Your task to perform on an android device: toggle improve location accuracy Image 0: 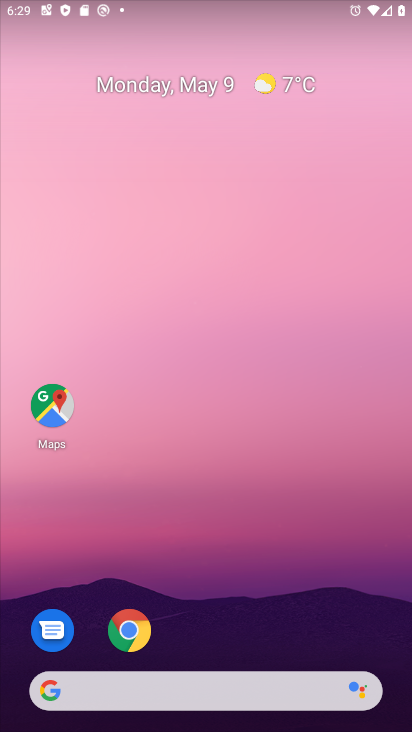
Step 0: drag from (252, 612) to (294, 173)
Your task to perform on an android device: toggle improve location accuracy Image 1: 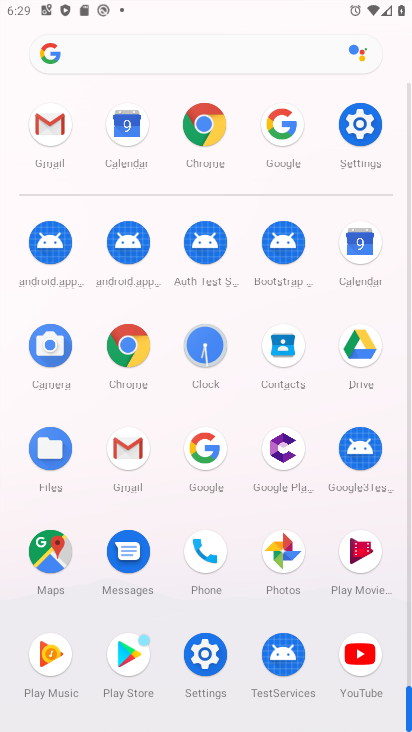
Step 1: click (367, 148)
Your task to perform on an android device: toggle improve location accuracy Image 2: 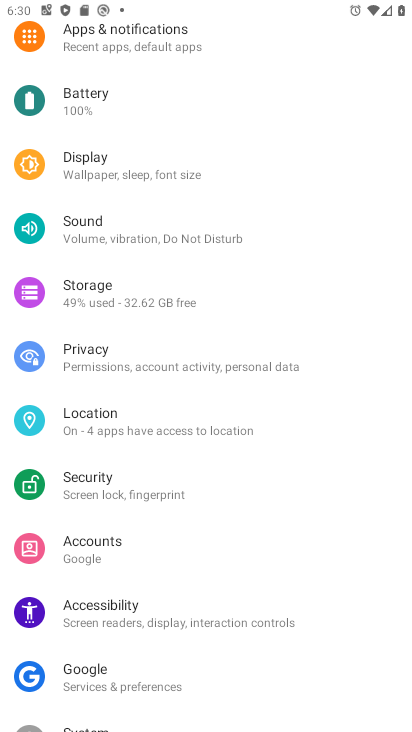
Step 2: click (147, 423)
Your task to perform on an android device: toggle improve location accuracy Image 3: 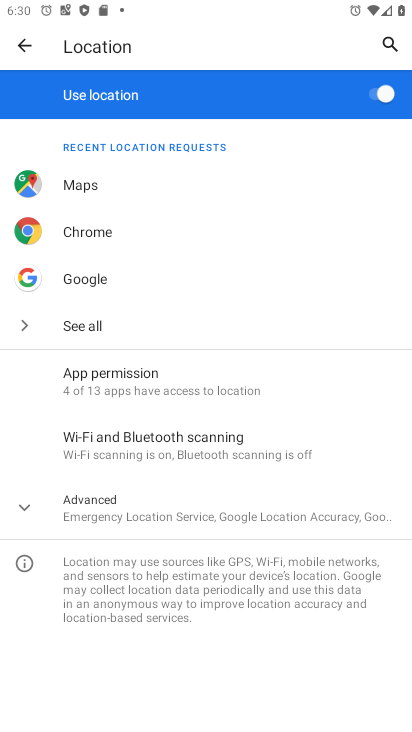
Step 3: click (135, 518)
Your task to perform on an android device: toggle improve location accuracy Image 4: 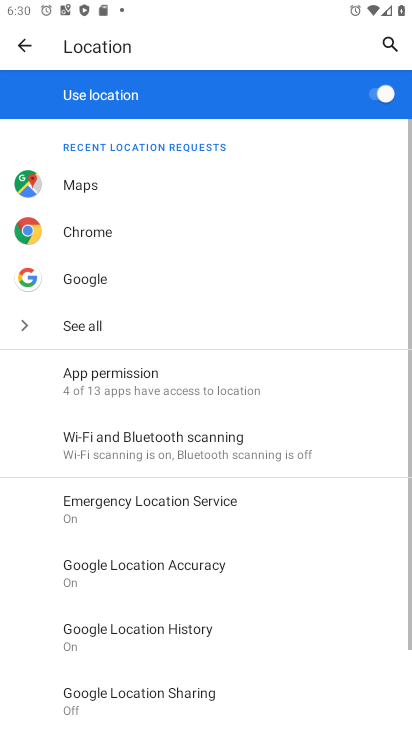
Step 4: drag from (189, 620) to (231, 462)
Your task to perform on an android device: toggle improve location accuracy Image 5: 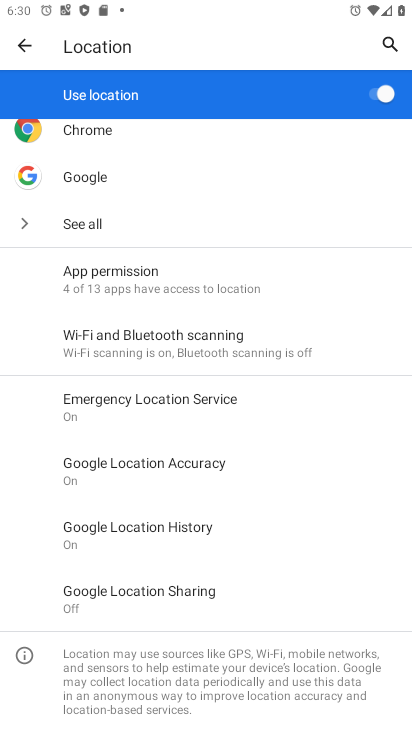
Step 5: click (192, 458)
Your task to perform on an android device: toggle improve location accuracy Image 6: 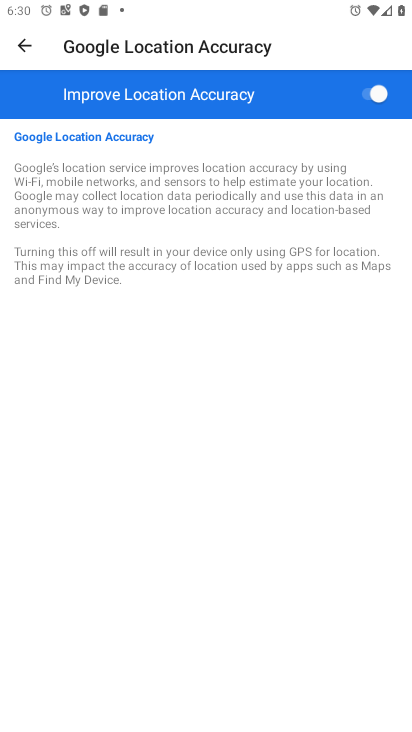
Step 6: click (366, 102)
Your task to perform on an android device: toggle improve location accuracy Image 7: 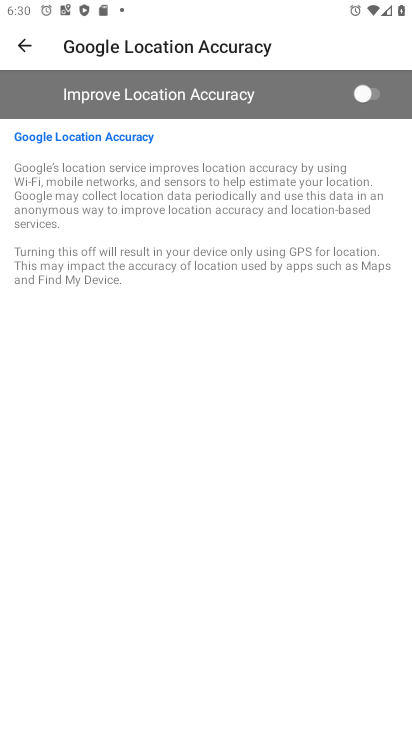
Step 7: task complete